Your task to perform on an android device: Search for vegetarian restaurants on Maps Image 0: 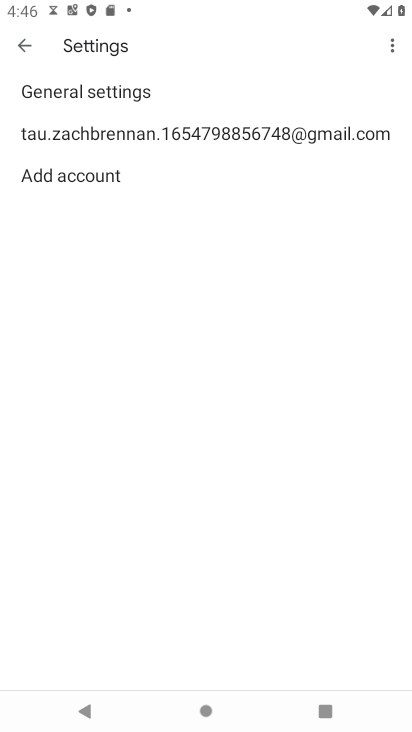
Step 0: press home button
Your task to perform on an android device: Search for vegetarian restaurants on Maps Image 1: 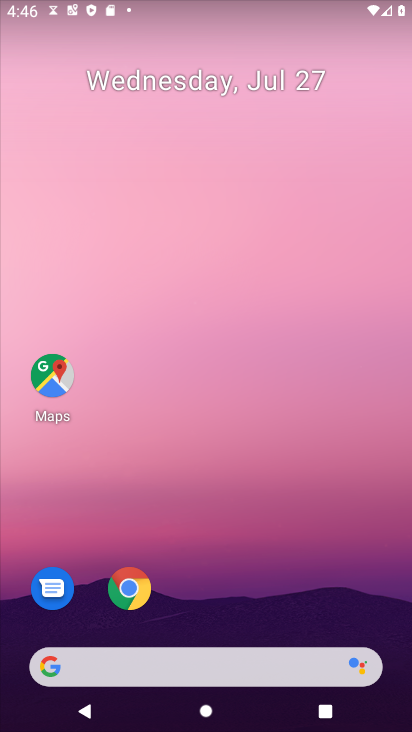
Step 1: drag from (251, 682) to (247, 190)
Your task to perform on an android device: Search for vegetarian restaurants on Maps Image 2: 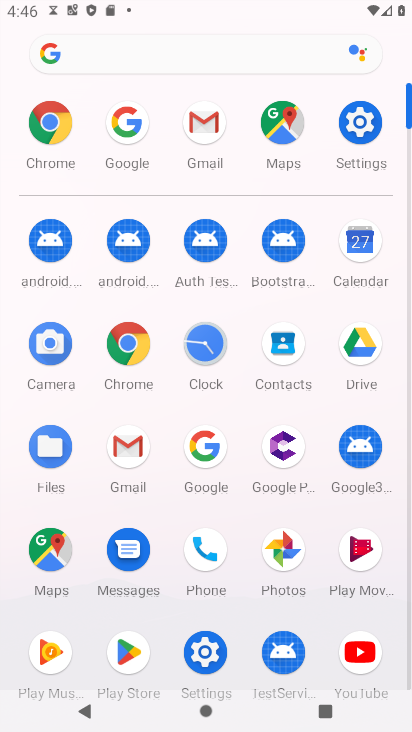
Step 2: click (58, 545)
Your task to perform on an android device: Search for vegetarian restaurants on Maps Image 3: 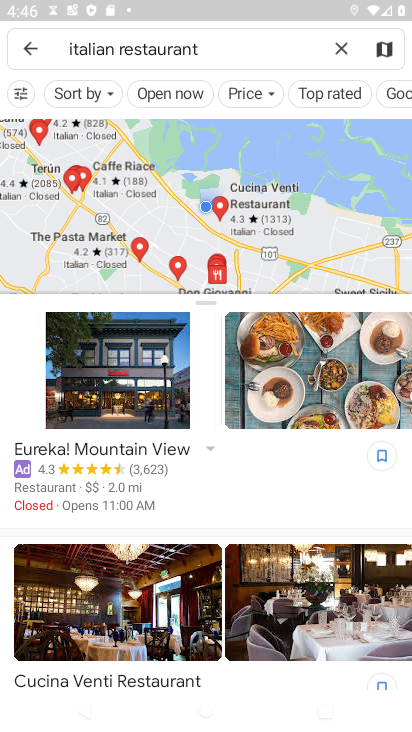
Step 3: click (340, 47)
Your task to perform on an android device: Search for vegetarian restaurants on Maps Image 4: 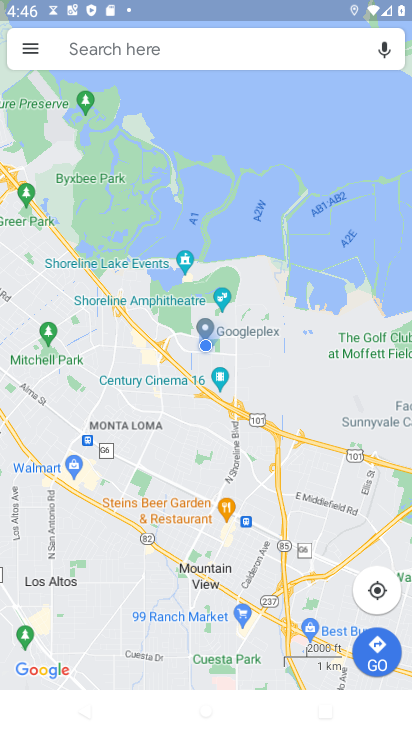
Step 4: click (217, 49)
Your task to perform on an android device: Search for vegetarian restaurants on Maps Image 5: 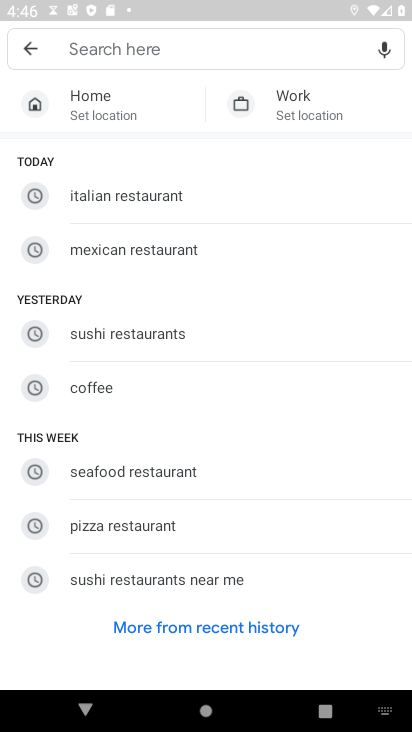
Step 5: type "vegetarian restaurants"
Your task to perform on an android device: Search for vegetarian restaurants on Maps Image 6: 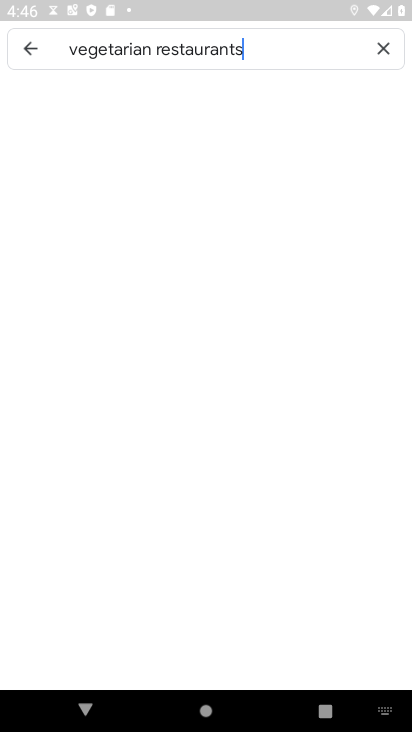
Step 6: type ""
Your task to perform on an android device: Search for vegetarian restaurants on Maps Image 7: 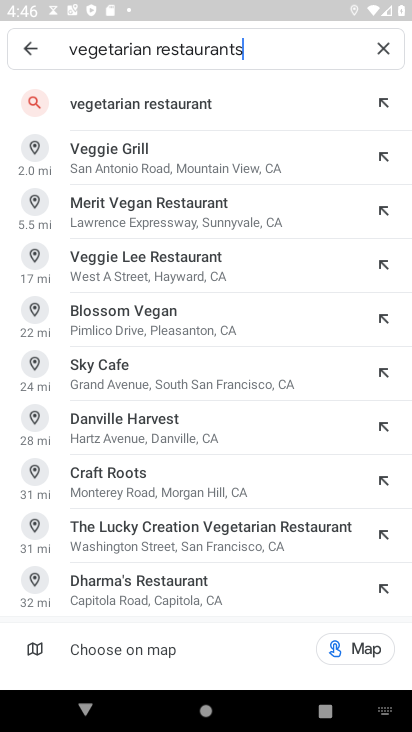
Step 7: click (148, 93)
Your task to perform on an android device: Search for vegetarian restaurants on Maps Image 8: 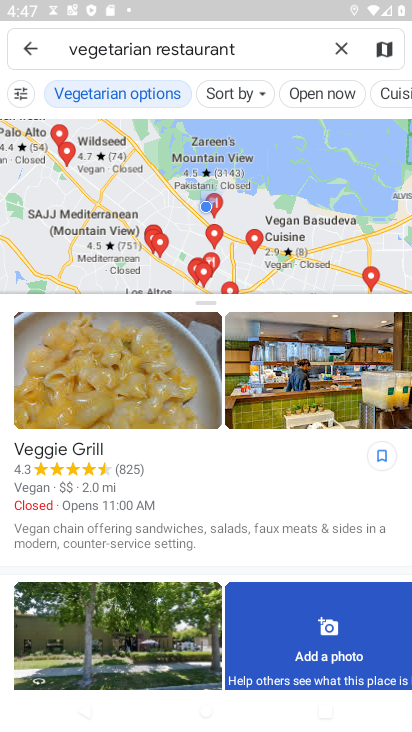
Step 8: task complete